Your task to perform on an android device: Go to Google Image 0: 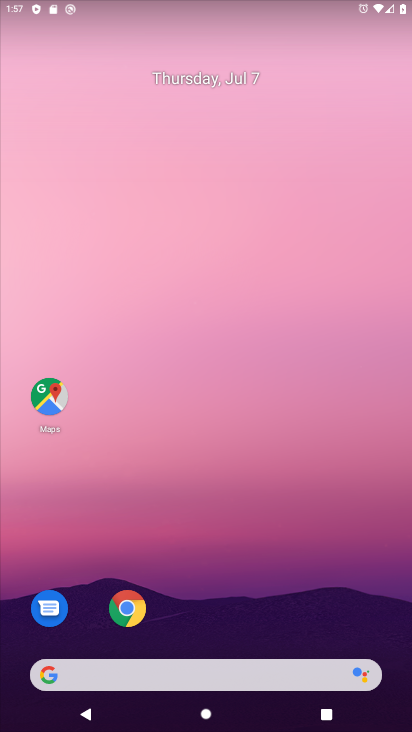
Step 0: drag from (240, 695) to (160, 92)
Your task to perform on an android device: Go to Google Image 1: 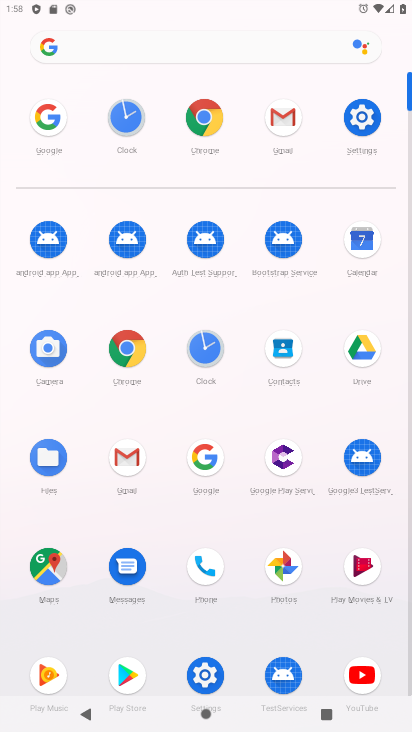
Step 1: click (201, 453)
Your task to perform on an android device: Go to Google Image 2: 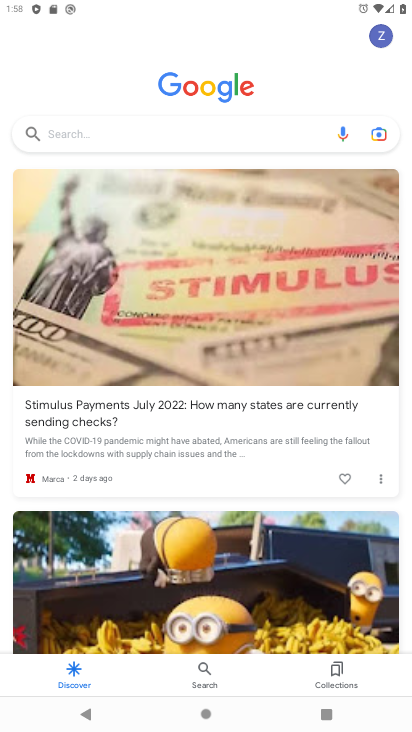
Step 2: task complete